Your task to perform on an android device: turn off javascript in the chrome app Image 0: 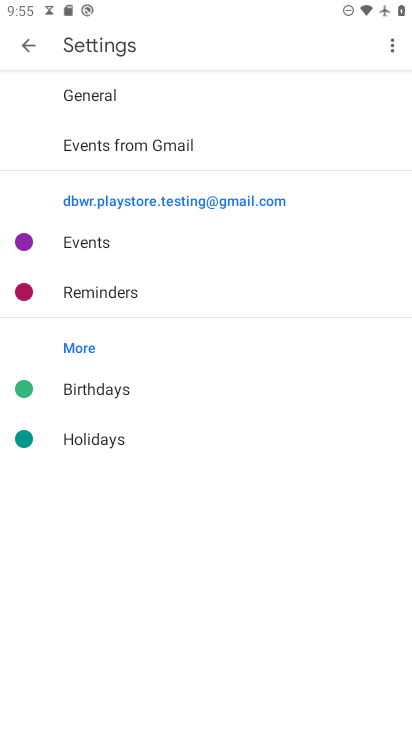
Step 0: press home button
Your task to perform on an android device: turn off javascript in the chrome app Image 1: 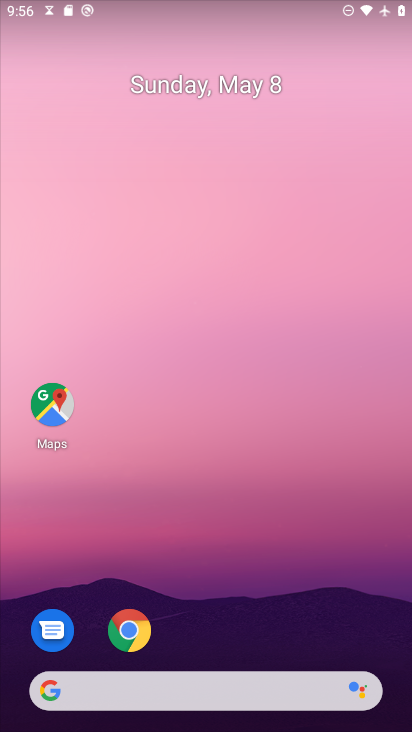
Step 1: click (131, 632)
Your task to perform on an android device: turn off javascript in the chrome app Image 2: 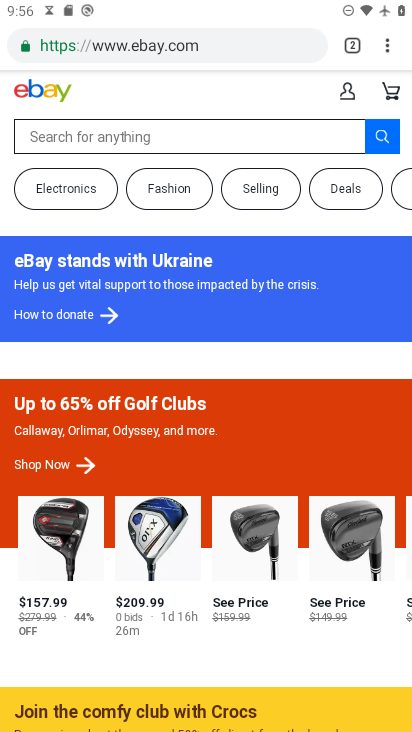
Step 2: drag from (386, 44) to (259, 551)
Your task to perform on an android device: turn off javascript in the chrome app Image 3: 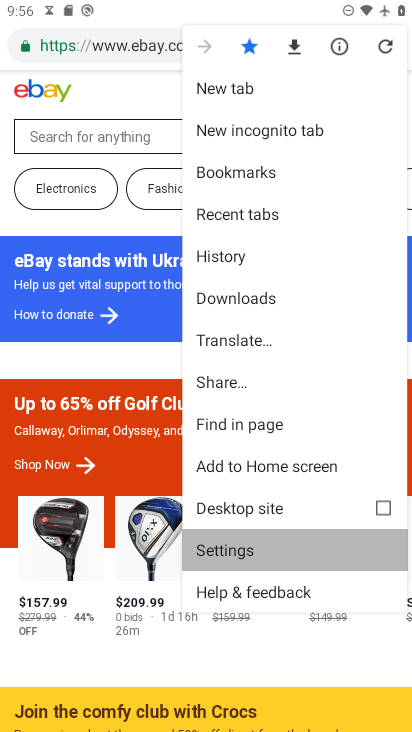
Step 3: click (259, 551)
Your task to perform on an android device: turn off javascript in the chrome app Image 4: 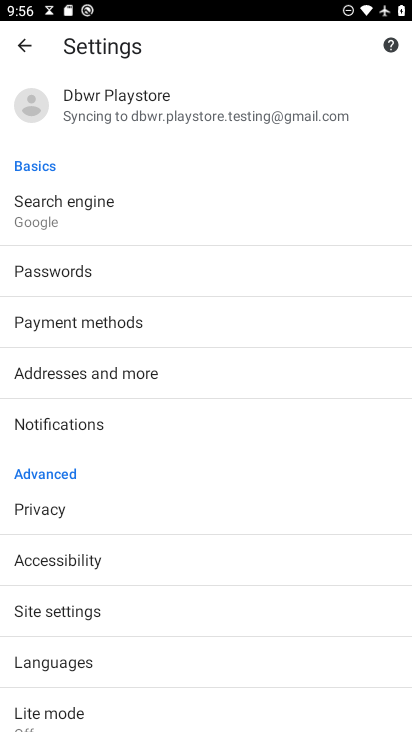
Step 4: click (103, 617)
Your task to perform on an android device: turn off javascript in the chrome app Image 5: 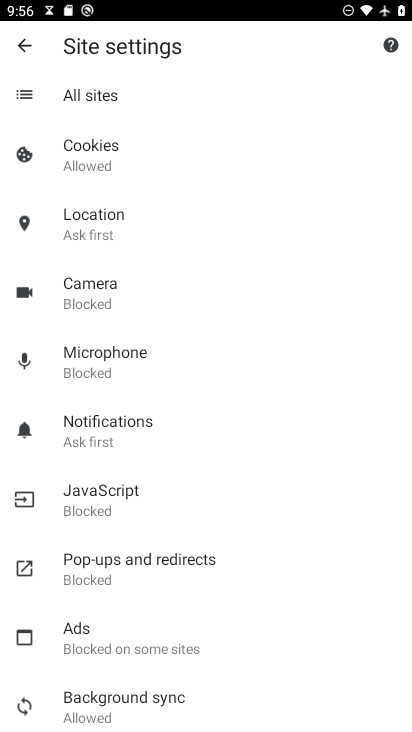
Step 5: click (97, 505)
Your task to perform on an android device: turn off javascript in the chrome app Image 6: 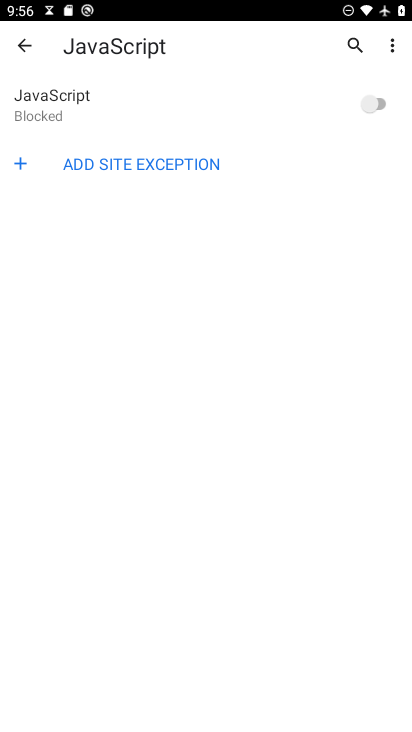
Step 6: task complete